Your task to perform on an android device: turn off sleep mode Image 0: 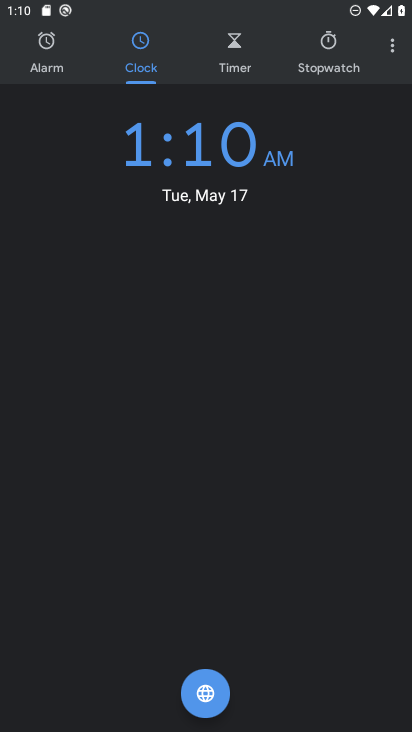
Step 0: press back button
Your task to perform on an android device: turn off sleep mode Image 1: 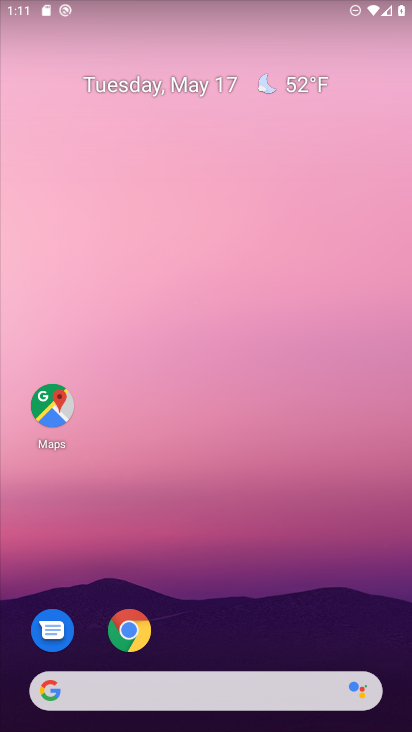
Step 1: drag from (221, 618) to (209, 139)
Your task to perform on an android device: turn off sleep mode Image 2: 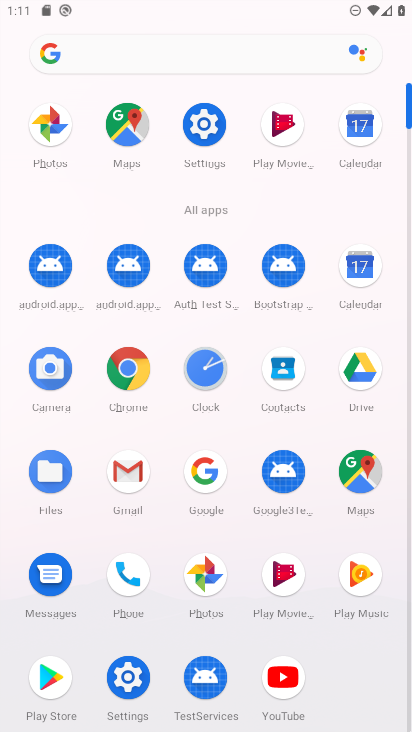
Step 2: click (204, 122)
Your task to perform on an android device: turn off sleep mode Image 3: 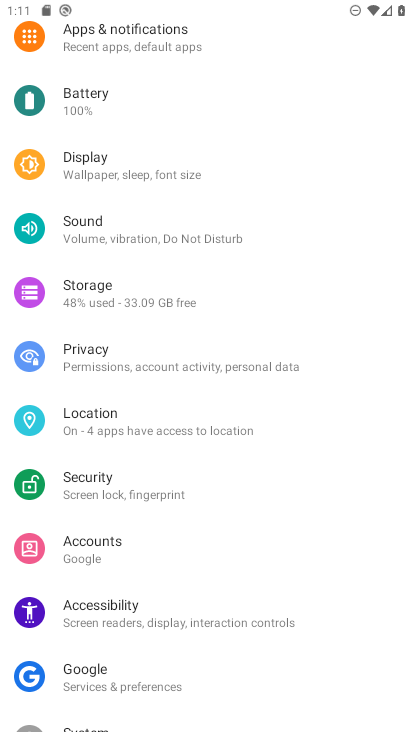
Step 3: drag from (143, 395) to (187, 450)
Your task to perform on an android device: turn off sleep mode Image 4: 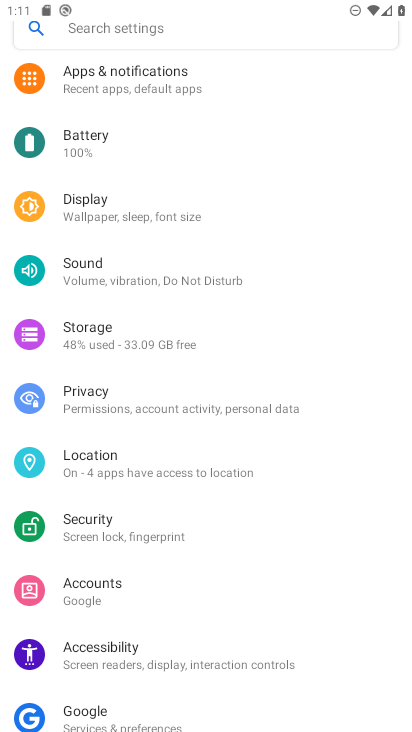
Step 4: click (142, 212)
Your task to perform on an android device: turn off sleep mode Image 5: 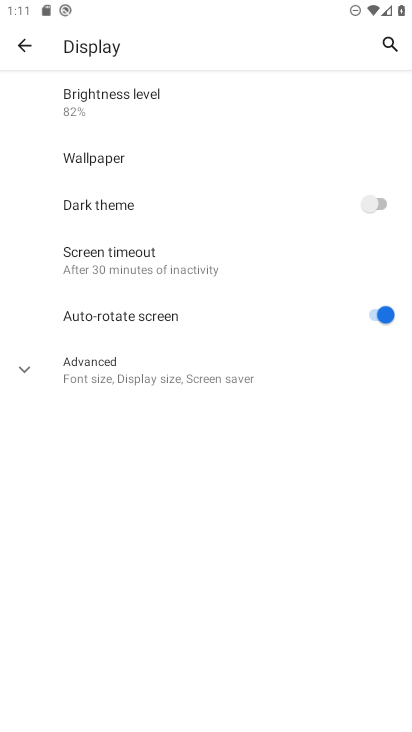
Step 5: click (167, 260)
Your task to perform on an android device: turn off sleep mode Image 6: 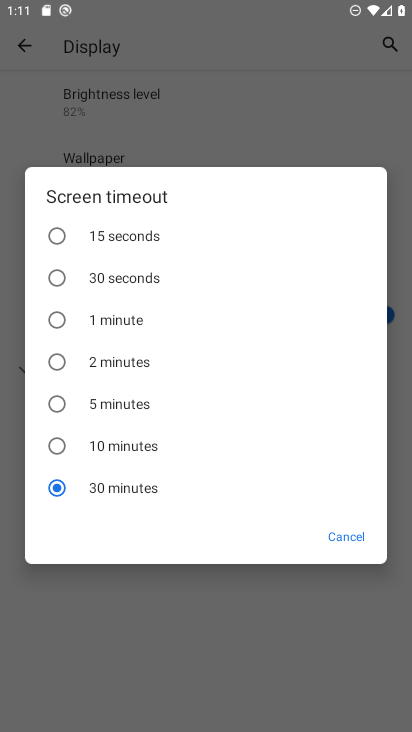
Step 6: click (46, 271)
Your task to perform on an android device: turn off sleep mode Image 7: 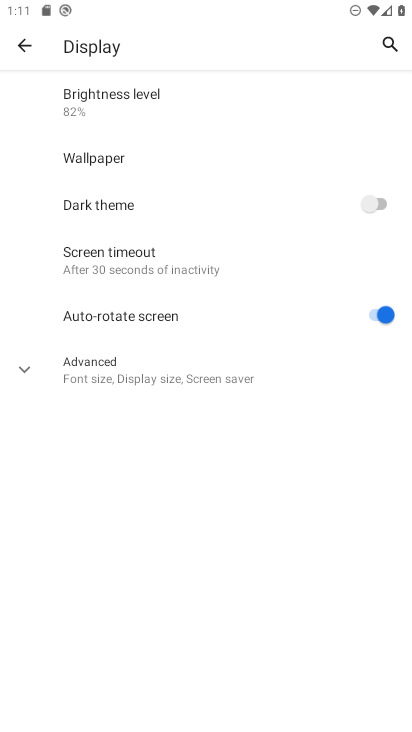
Step 7: click (121, 386)
Your task to perform on an android device: turn off sleep mode Image 8: 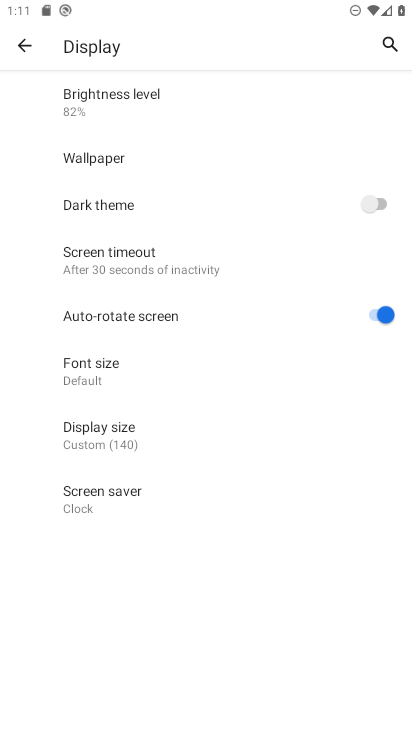
Step 8: task complete